Your task to perform on an android device: Open calendar and show me the first week of next month Image 0: 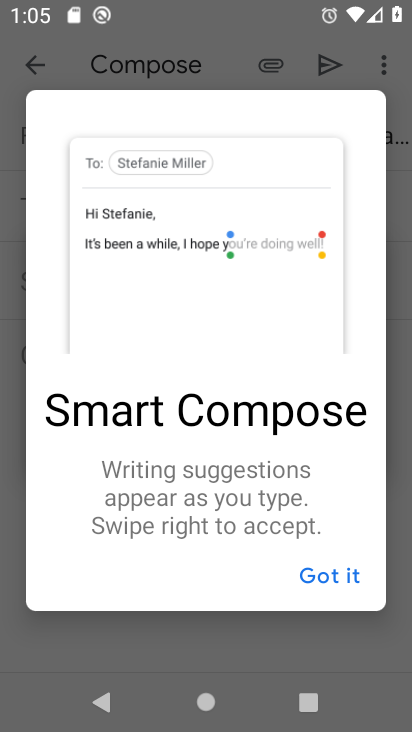
Step 0: press home button
Your task to perform on an android device: Open calendar and show me the first week of next month Image 1: 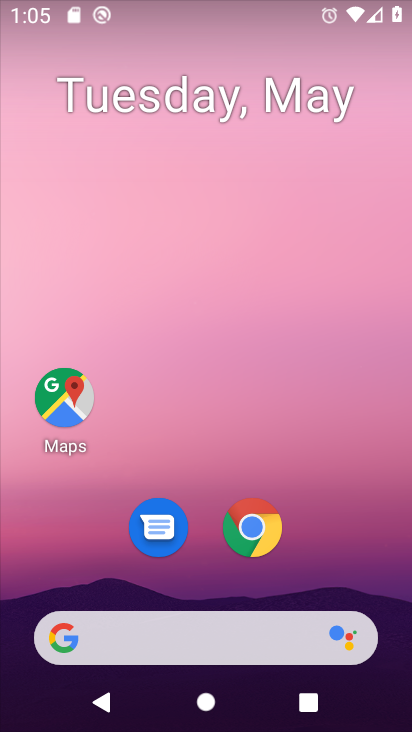
Step 1: drag from (242, 697) to (126, 50)
Your task to perform on an android device: Open calendar and show me the first week of next month Image 2: 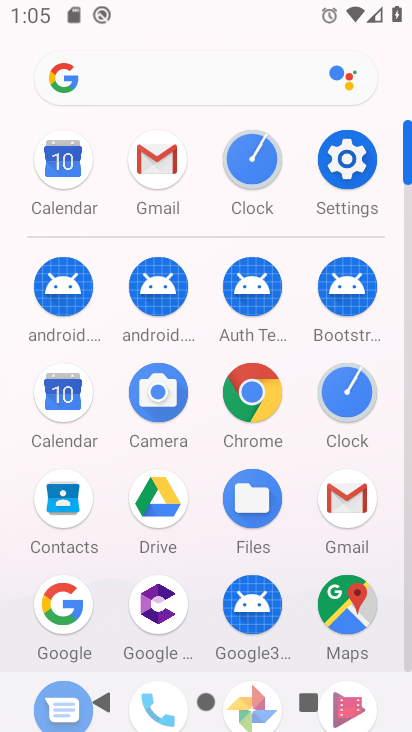
Step 2: click (52, 400)
Your task to perform on an android device: Open calendar and show me the first week of next month Image 3: 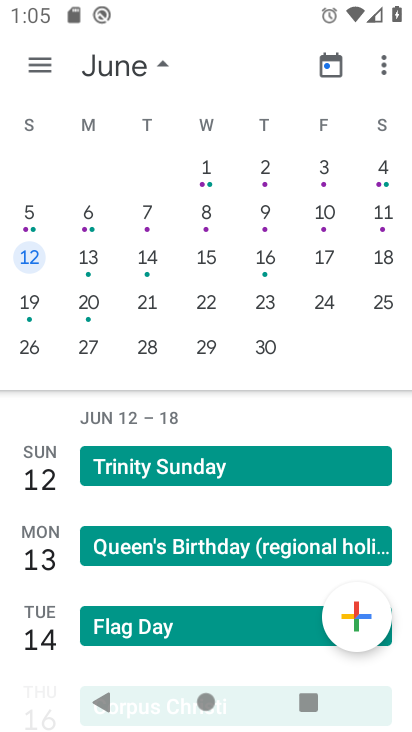
Step 3: click (204, 175)
Your task to perform on an android device: Open calendar and show me the first week of next month Image 4: 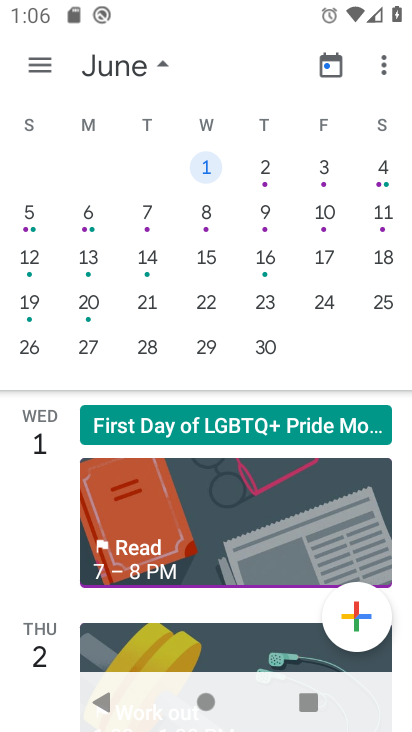
Step 4: task complete